Your task to perform on an android device: check the backup settings in the google photos Image 0: 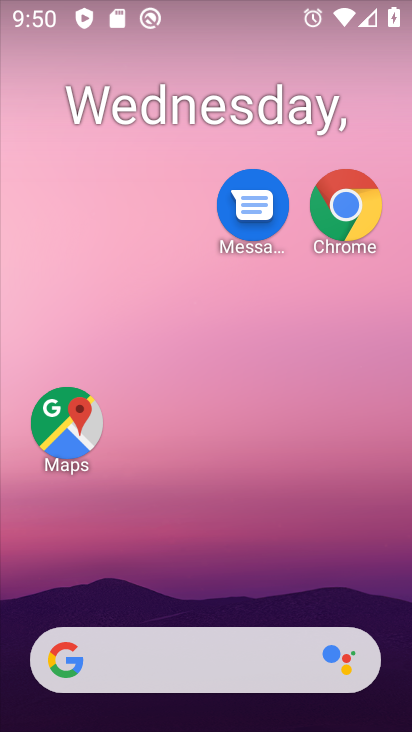
Step 0: drag from (243, 574) to (282, 187)
Your task to perform on an android device: check the backup settings in the google photos Image 1: 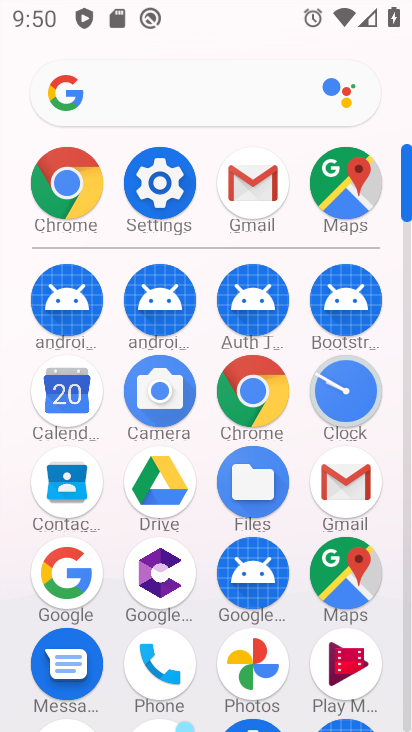
Step 1: click (259, 659)
Your task to perform on an android device: check the backup settings in the google photos Image 2: 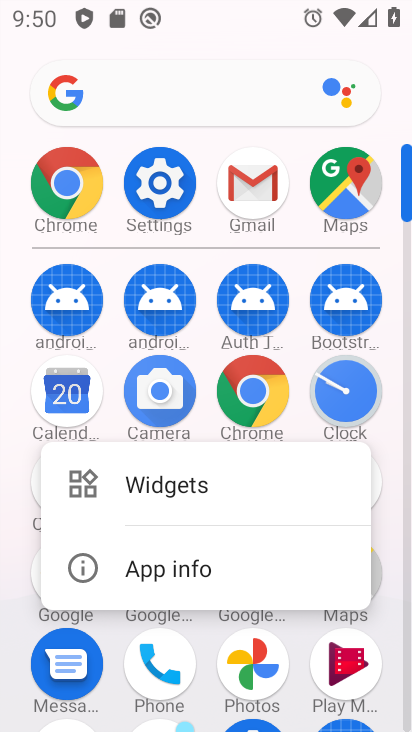
Step 2: click (137, 576)
Your task to perform on an android device: check the backup settings in the google photos Image 3: 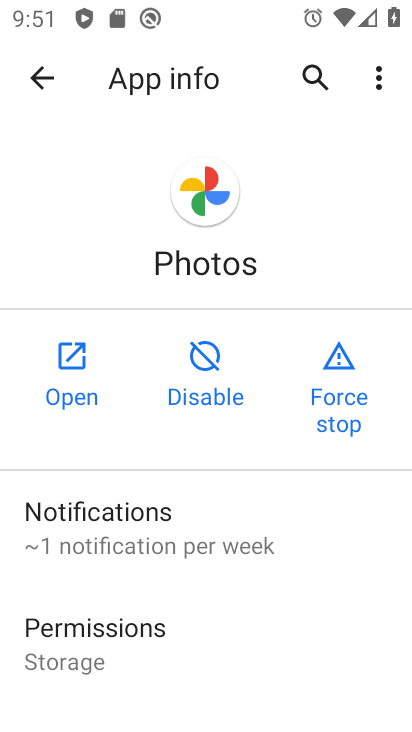
Step 3: click (74, 364)
Your task to perform on an android device: check the backup settings in the google photos Image 4: 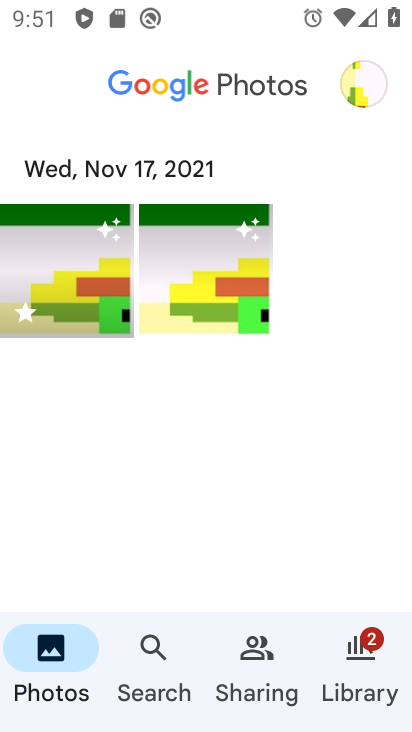
Step 4: click (358, 682)
Your task to perform on an android device: check the backup settings in the google photos Image 5: 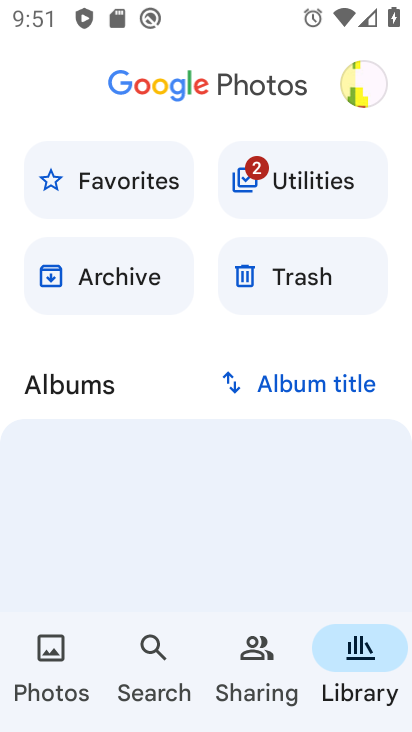
Step 5: click (370, 90)
Your task to perform on an android device: check the backup settings in the google photos Image 6: 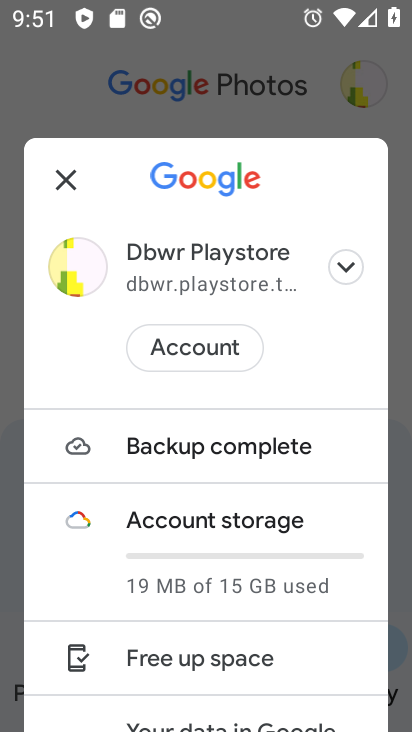
Step 6: drag from (218, 600) to (254, 261)
Your task to perform on an android device: check the backup settings in the google photos Image 7: 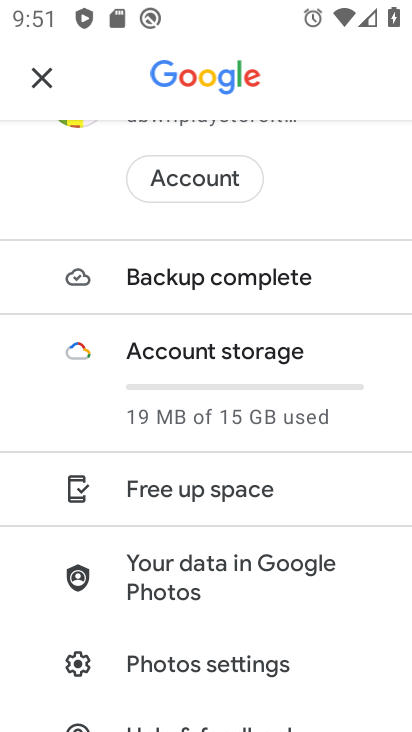
Step 7: click (212, 666)
Your task to perform on an android device: check the backup settings in the google photos Image 8: 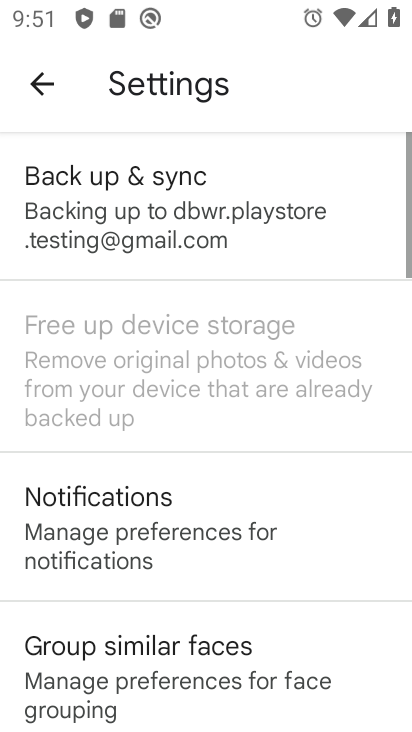
Step 8: drag from (237, 621) to (243, 727)
Your task to perform on an android device: check the backup settings in the google photos Image 9: 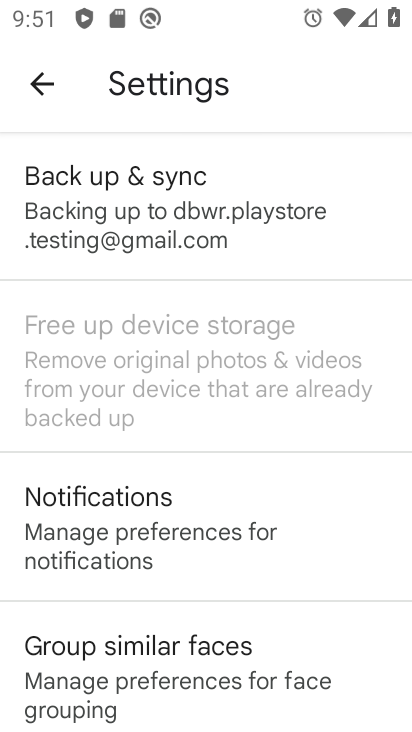
Step 9: click (187, 204)
Your task to perform on an android device: check the backup settings in the google photos Image 10: 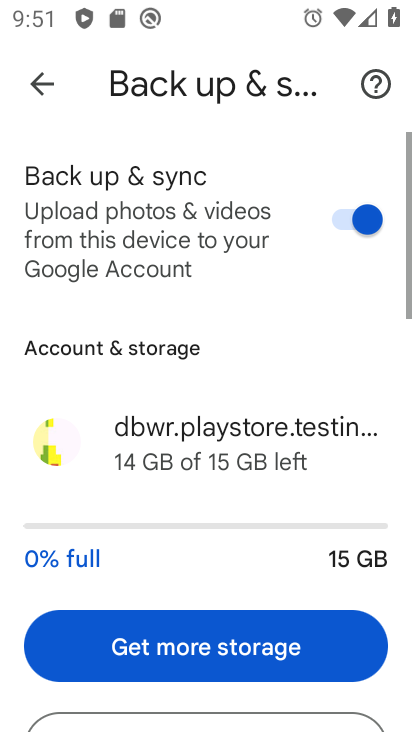
Step 10: task complete